Your task to perform on an android device: Go to network settings Image 0: 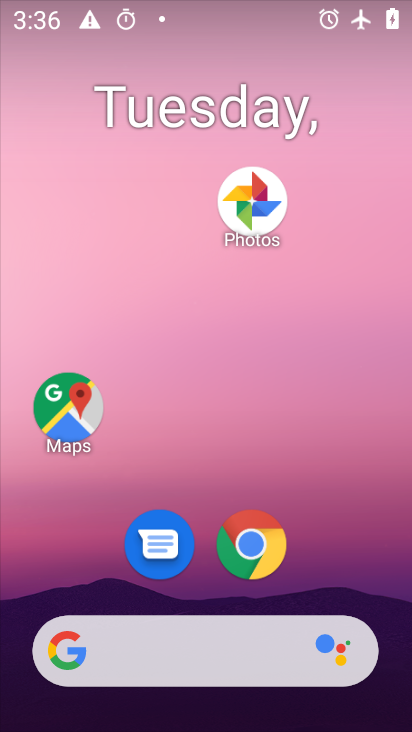
Step 0: drag from (373, 501) to (341, 3)
Your task to perform on an android device: Go to network settings Image 1: 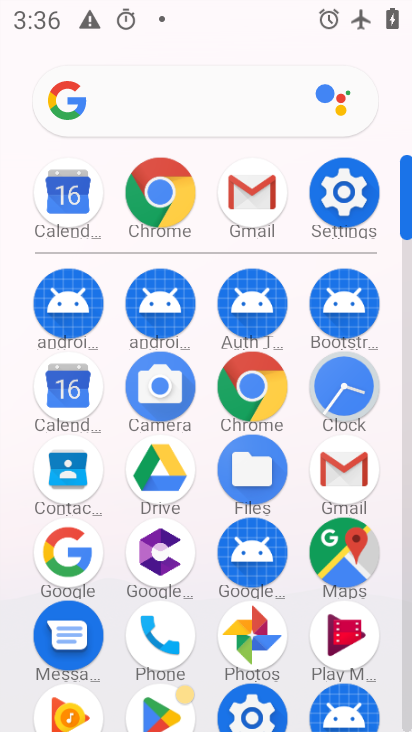
Step 1: drag from (293, 655) to (323, 255)
Your task to perform on an android device: Go to network settings Image 2: 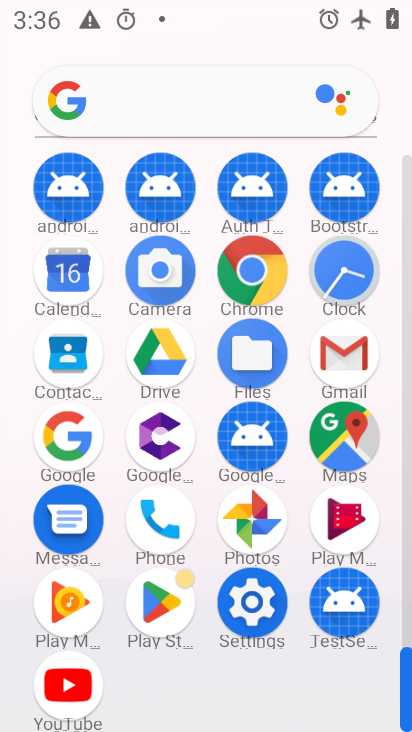
Step 2: click (258, 608)
Your task to perform on an android device: Go to network settings Image 3: 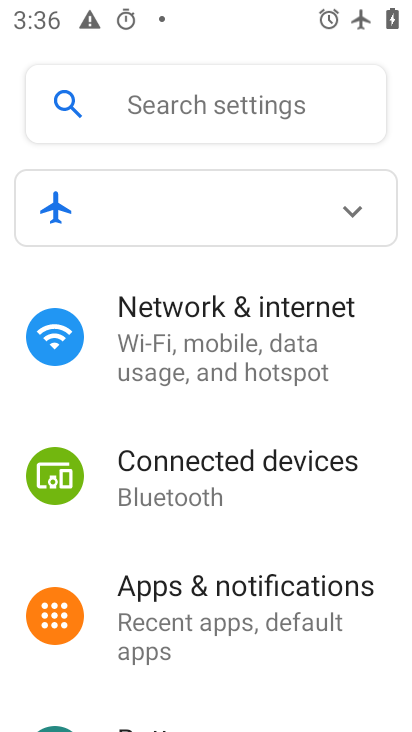
Step 3: click (245, 343)
Your task to perform on an android device: Go to network settings Image 4: 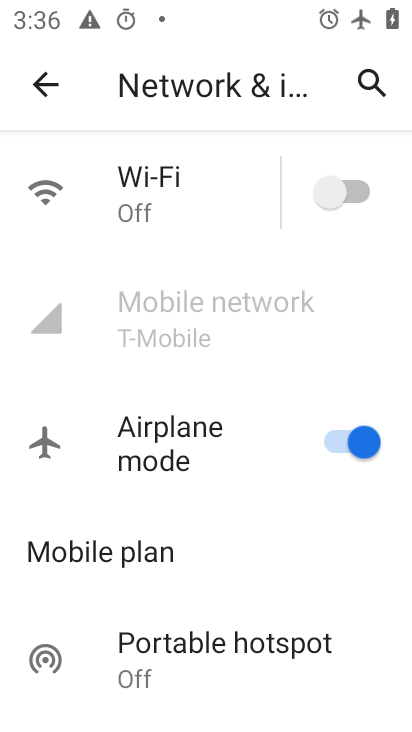
Step 4: task complete